Your task to perform on an android device: Go to location settings Image 0: 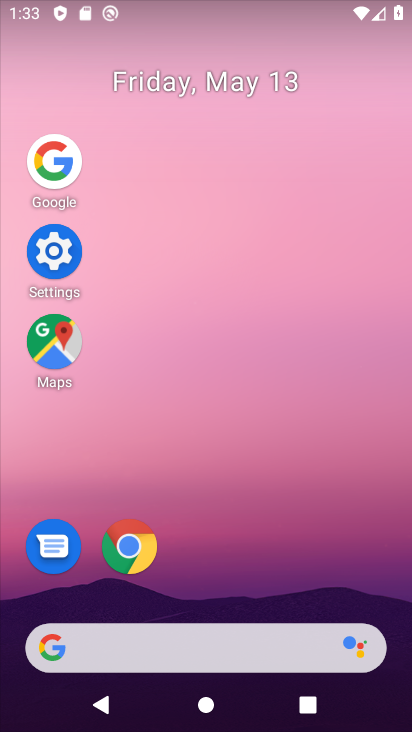
Step 0: click (68, 247)
Your task to perform on an android device: Go to location settings Image 1: 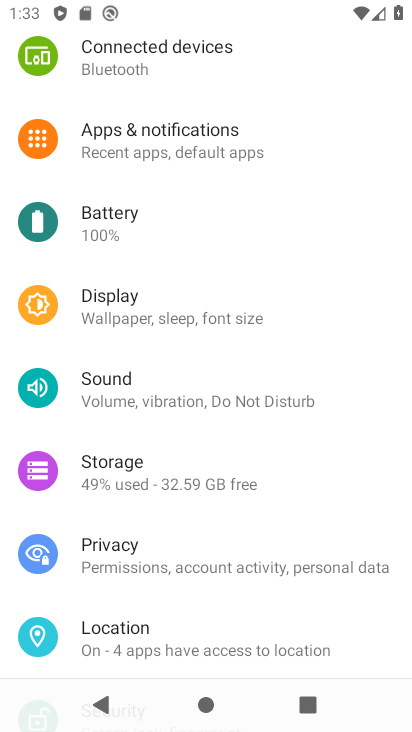
Step 1: drag from (223, 543) to (228, 217)
Your task to perform on an android device: Go to location settings Image 2: 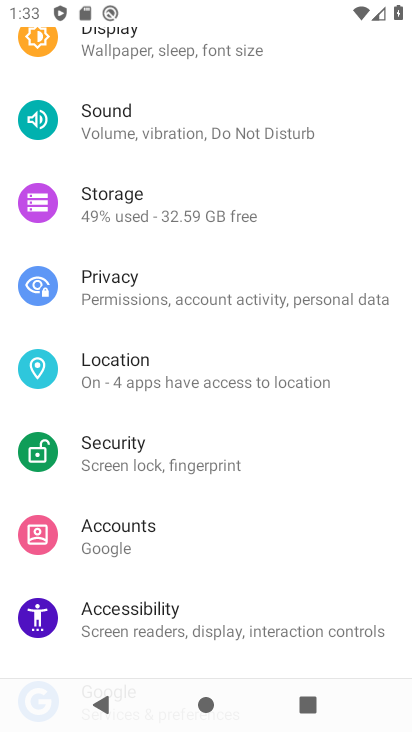
Step 2: click (176, 374)
Your task to perform on an android device: Go to location settings Image 3: 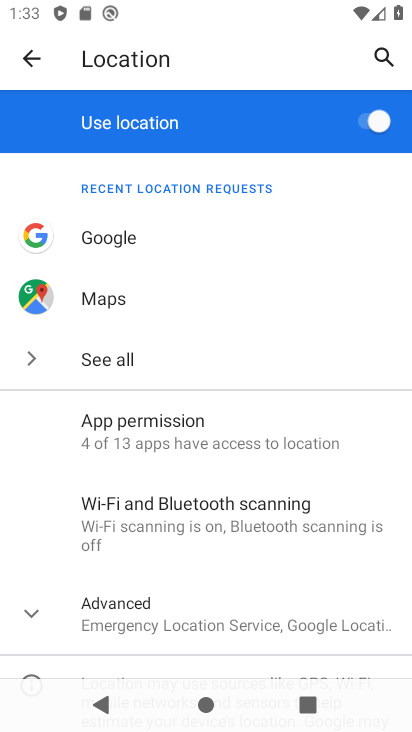
Step 3: task complete